Your task to perform on an android device: Open notification settings Image 0: 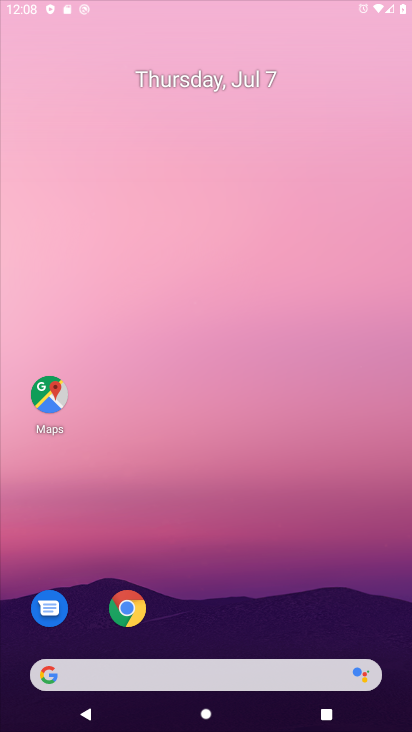
Step 0: drag from (209, 541) to (261, 22)
Your task to perform on an android device: Open notification settings Image 1: 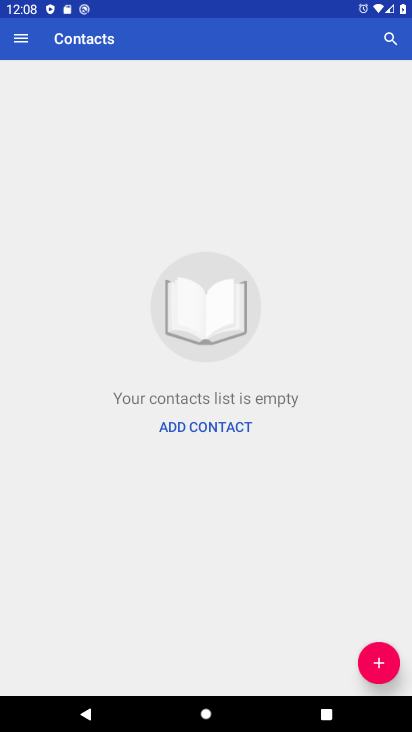
Step 1: press back button
Your task to perform on an android device: Open notification settings Image 2: 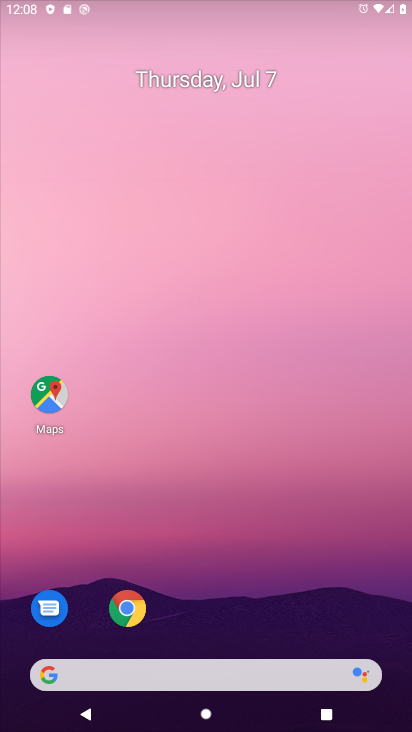
Step 2: drag from (251, 602) to (317, 1)
Your task to perform on an android device: Open notification settings Image 3: 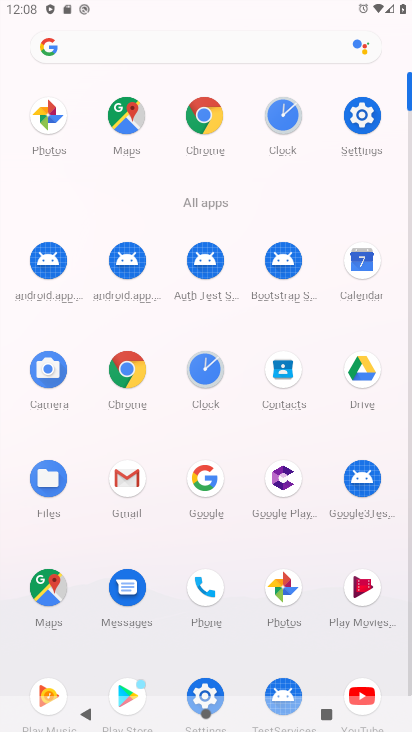
Step 3: click (358, 118)
Your task to perform on an android device: Open notification settings Image 4: 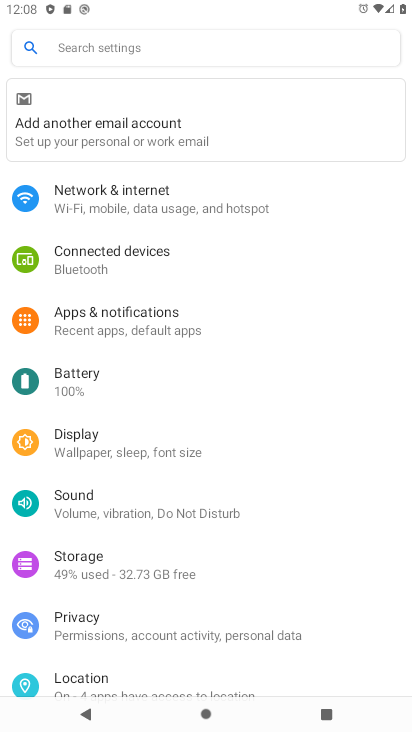
Step 4: click (99, 326)
Your task to perform on an android device: Open notification settings Image 5: 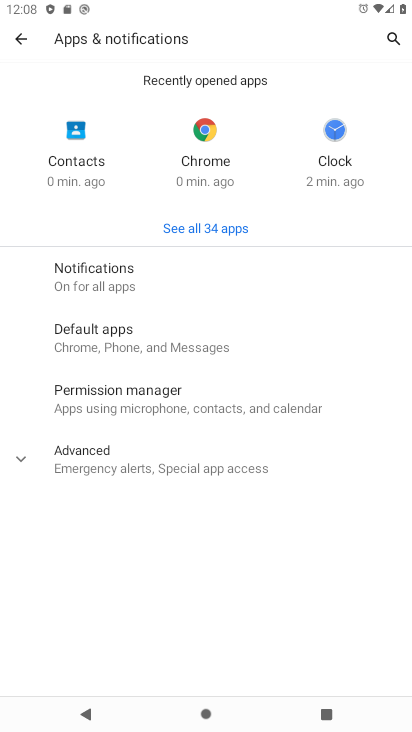
Step 5: click (133, 265)
Your task to perform on an android device: Open notification settings Image 6: 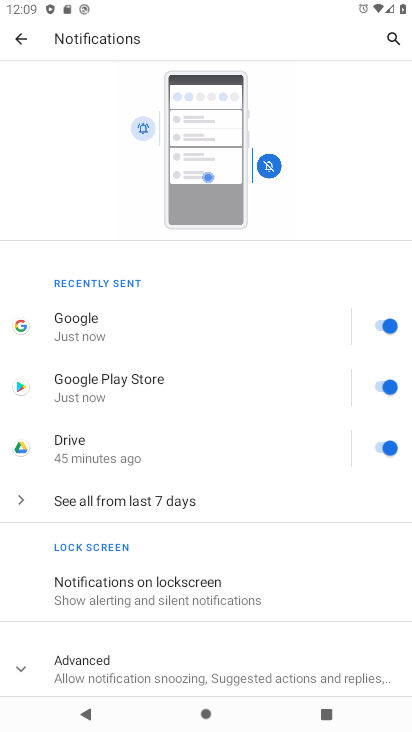
Step 6: task complete